Your task to perform on an android device: Play the last video I watched on Youtube Image 0: 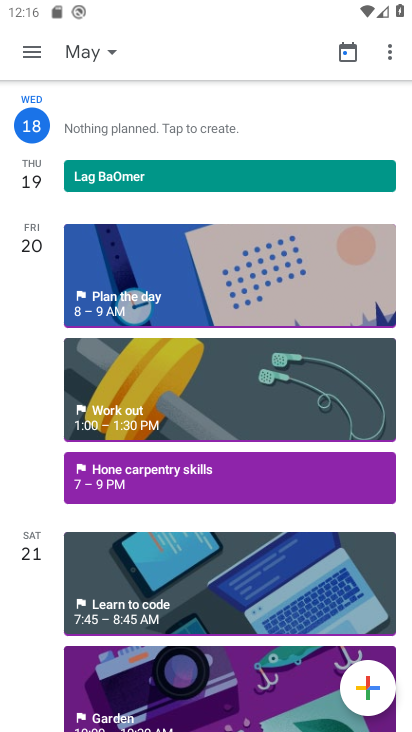
Step 0: press home button
Your task to perform on an android device: Play the last video I watched on Youtube Image 1: 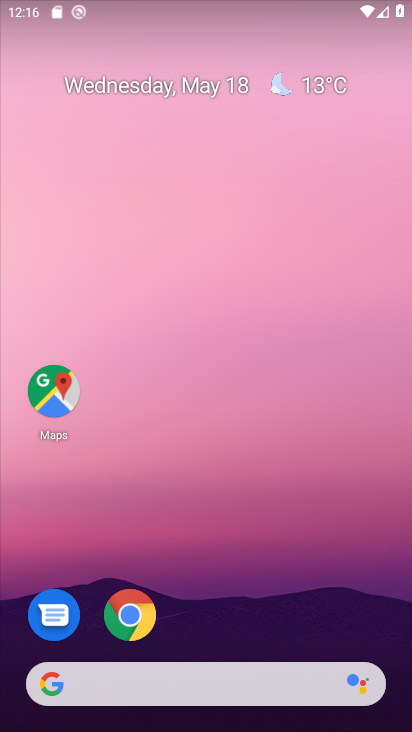
Step 1: drag from (391, 484) to (390, 315)
Your task to perform on an android device: Play the last video I watched on Youtube Image 2: 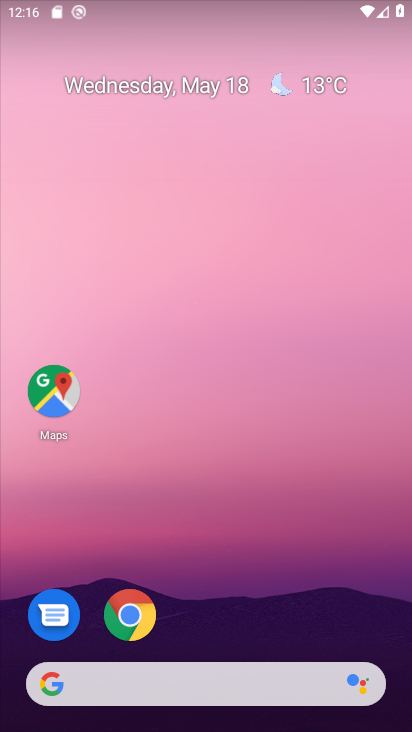
Step 2: drag from (403, 680) to (380, 131)
Your task to perform on an android device: Play the last video I watched on Youtube Image 3: 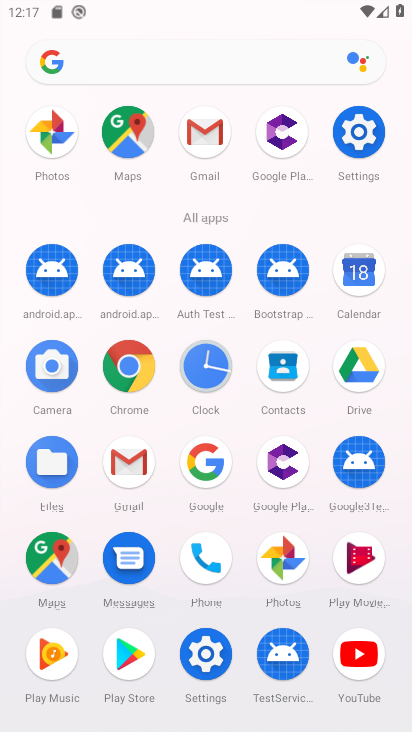
Step 3: click (351, 653)
Your task to perform on an android device: Play the last video I watched on Youtube Image 4: 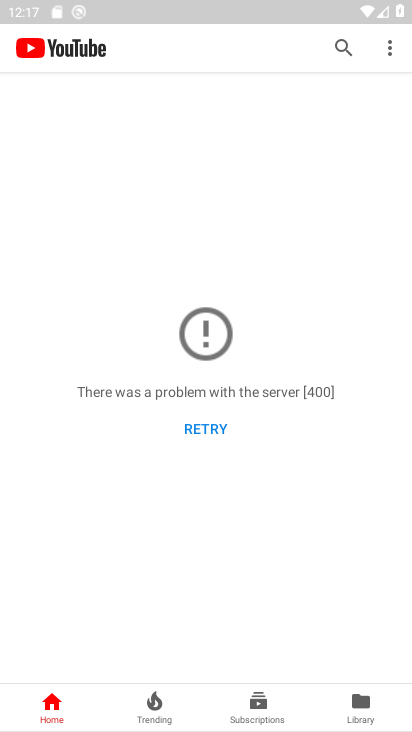
Step 4: click (391, 42)
Your task to perform on an android device: Play the last video I watched on Youtube Image 5: 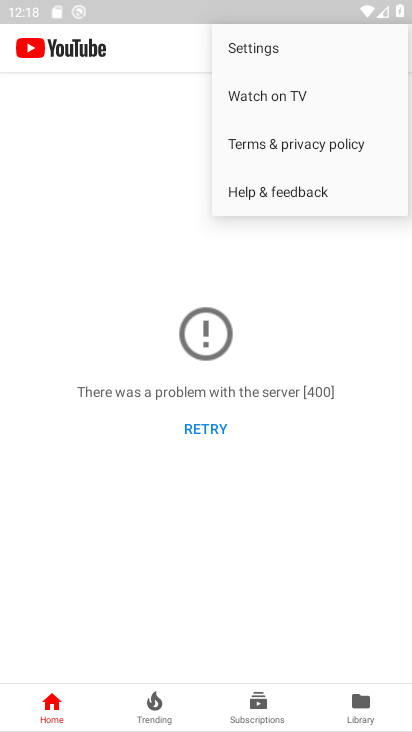
Step 5: task complete